Your task to perform on an android device: delete browsing data in the chrome app Image 0: 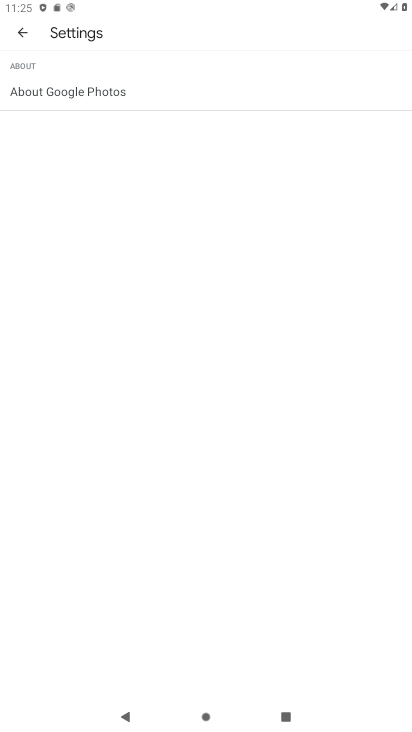
Step 0: press home button
Your task to perform on an android device: delete browsing data in the chrome app Image 1: 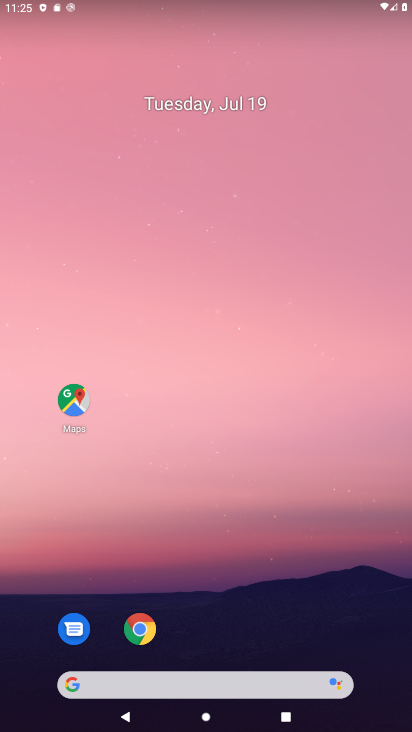
Step 1: drag from (351, 587) to (375, 79)
Your task to perform on an android device: delete browsing data in the chrome app Image 2: 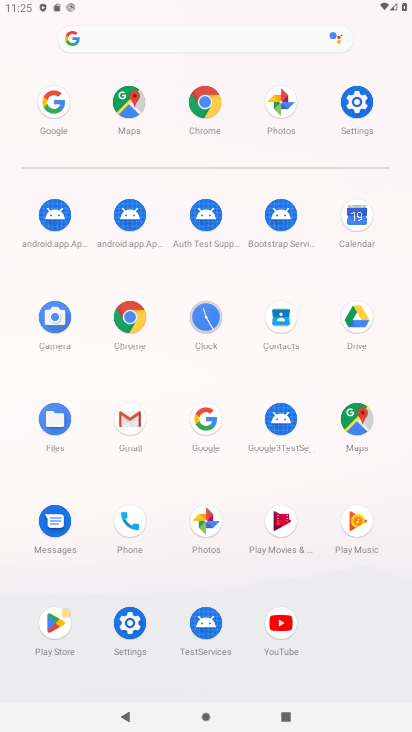
Step 2: click (130, 318)
Your task to perform on an android device: delete browsing data in the chrome app Image 3: 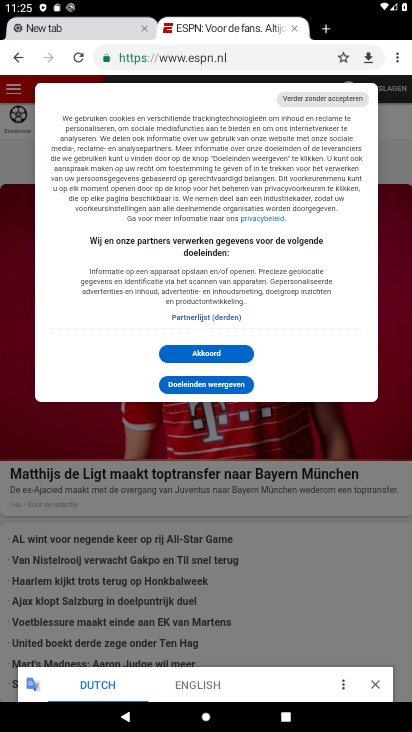
Step 3: click (397, 58)
Your task to perform on an android device: delete browsing data in the chrome app Image 4: 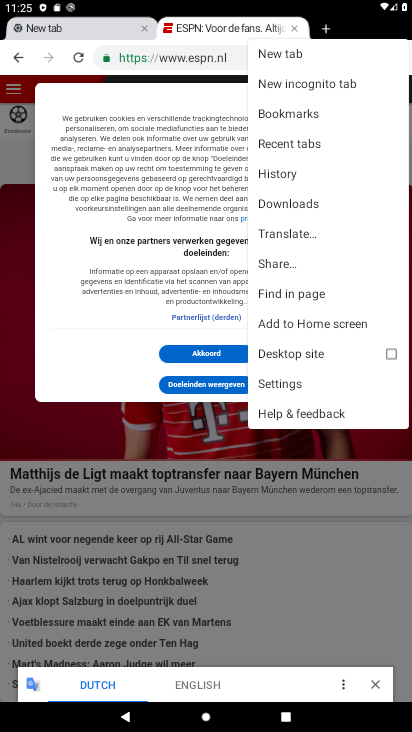
Step 4: click (319, 383)
Your task to perform on an android device: delete browsing data in the chrome app Image 5: 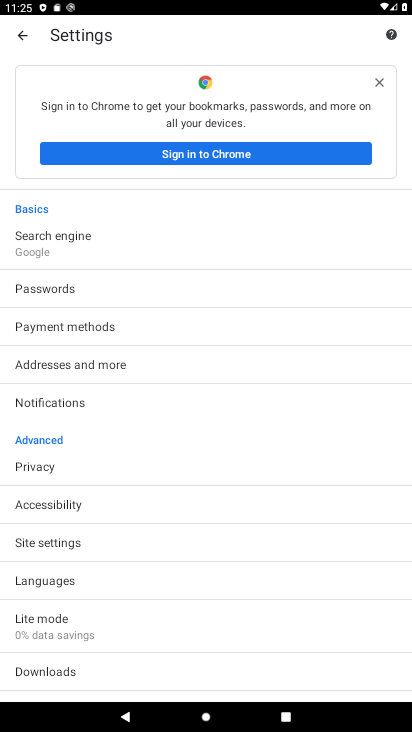
Step 5: drag from (283, 441) to (285, 312)
Your task to perform on an android device: delete browsing data in the chrome app Image 6: 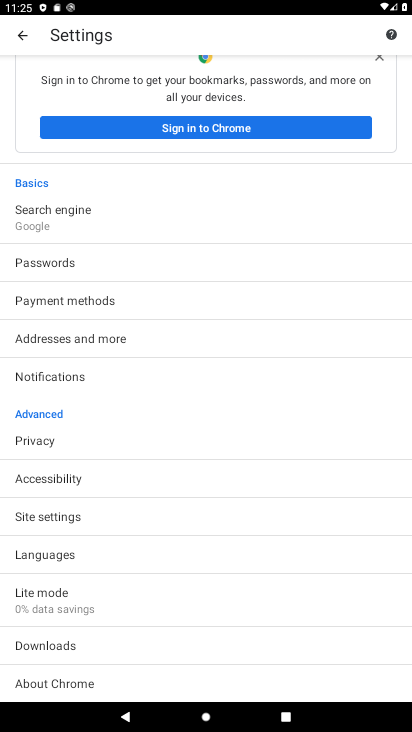
Step 6: click (278, 428)
Your task to perform on an android device: delete browsing data in the chrome app Image 7: 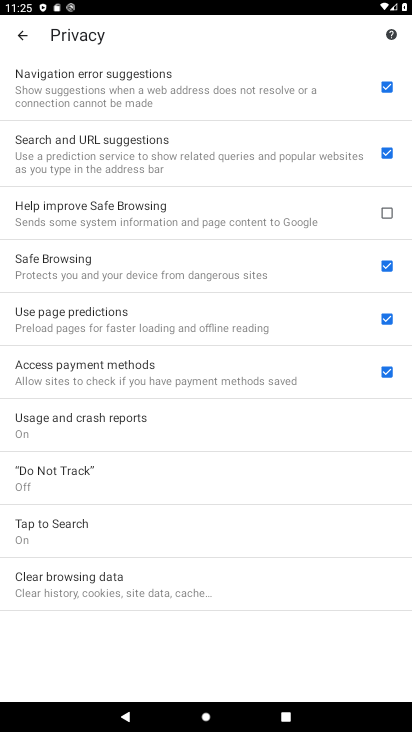
Step 7: click (266, 568)
Your task to perform on an android device: delete browsing data in the chrome app Image 8: 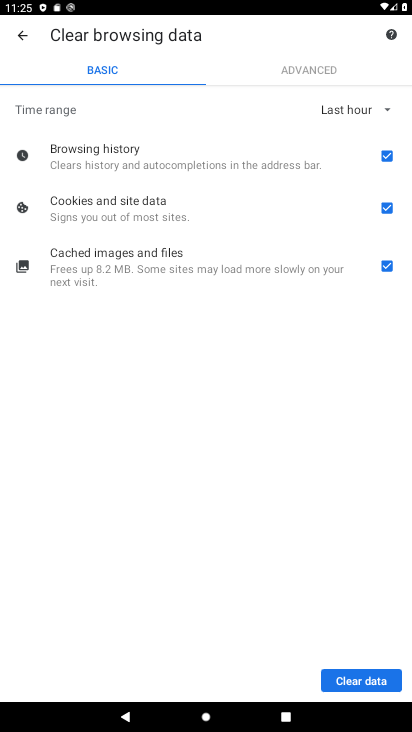
Step 8: click (351, 680)
Your task to perform on an android device: delete browsing data in the chrome app Image 9: 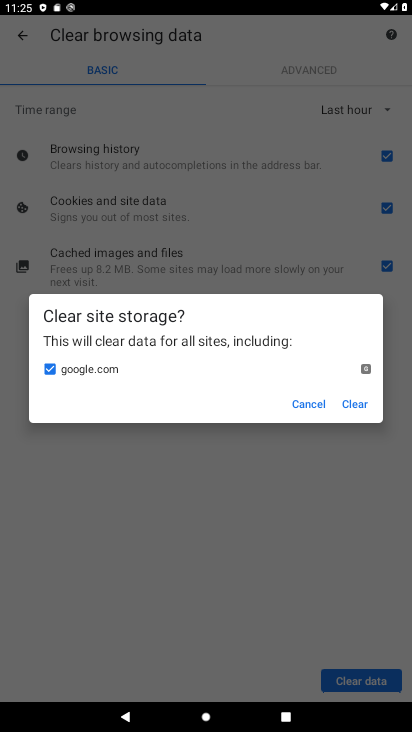
Step 9: click (359, 401)
Your task to perform on an android device: delete browsing data in the chrome app Image 10: 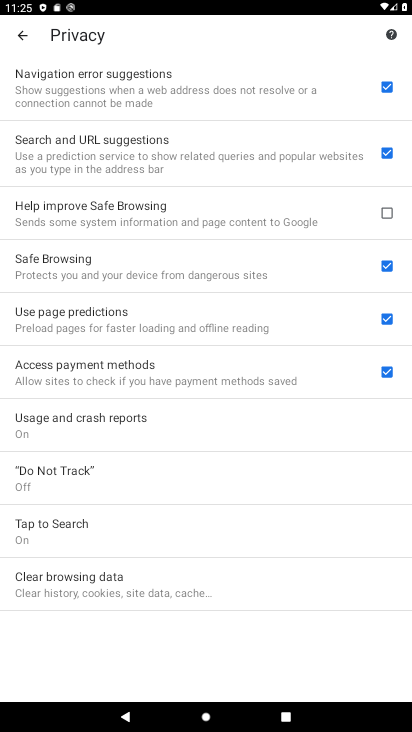
Step 10: task complete